Your task to perform on an android device: Go to location settings Image 0: 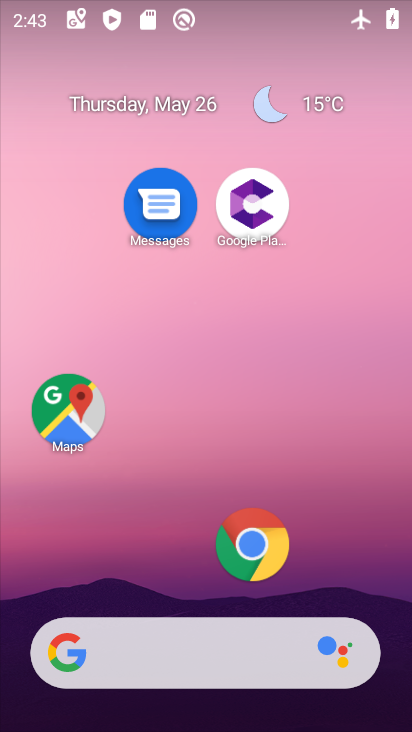
Step 0: drag from (156, 585) to (204, 174)
Your task to perform on an android device: Go to location settings Image 1: 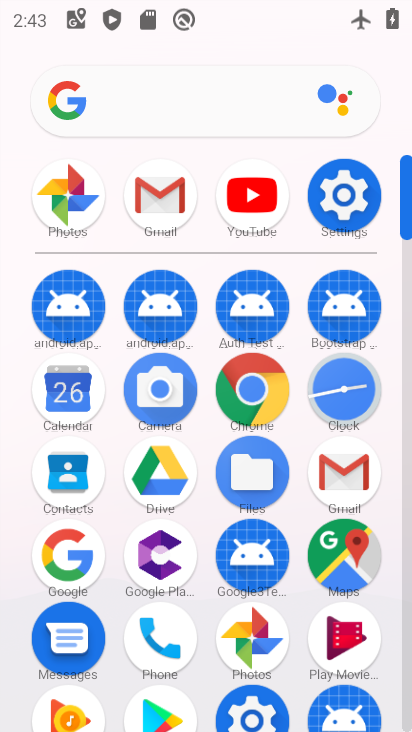
Step 1: click (335, 207)
Your task to perform on an android device: Go to location settings Image 2: 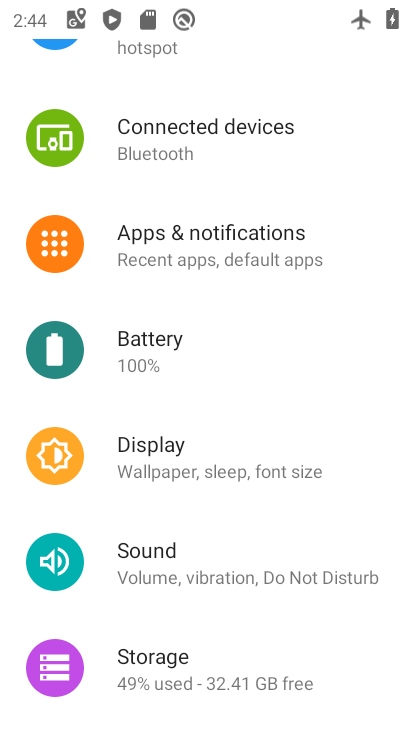
Step 2: drag from (133, 625) to (180, 184)
Your task to perform on an android device: Go to location settings Image 3: 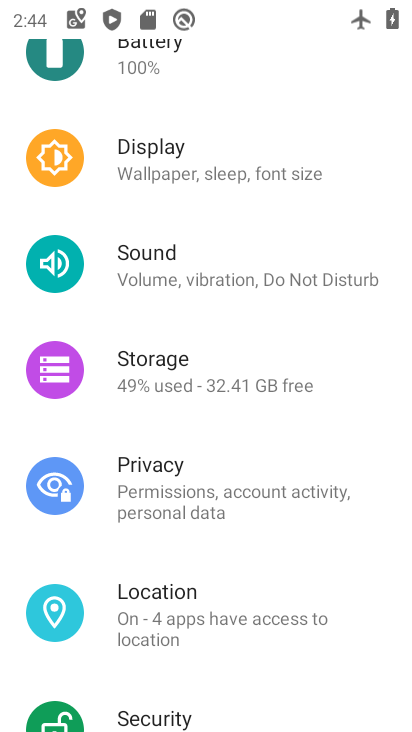
Step 3: click (60, 643)
Your task to perform on an android device: Go to location settings Image 4: 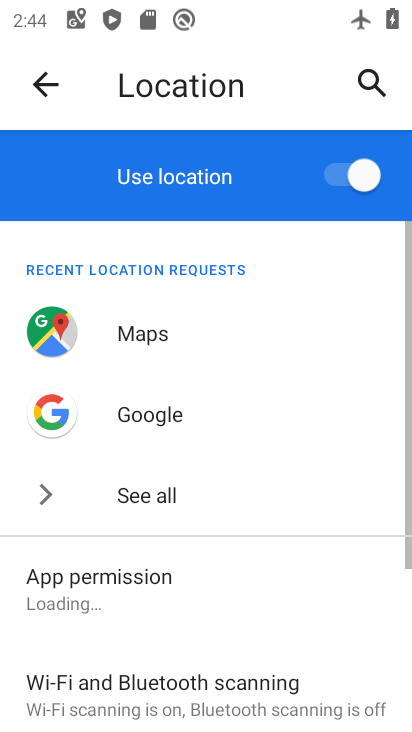
Step 4: task complete